Your task to perform on an android device: refresh tabs in the chrome app Image 0: 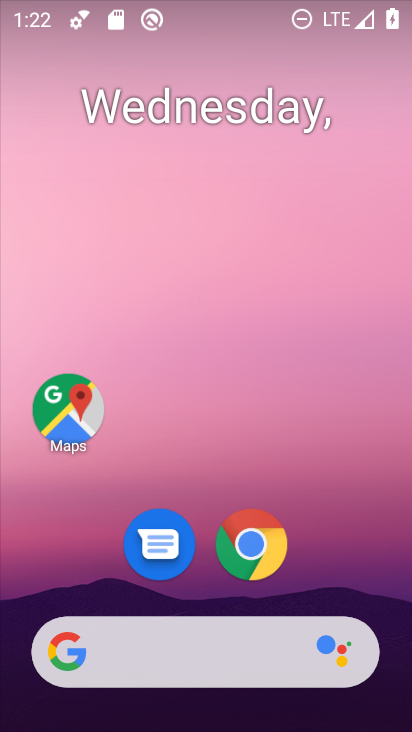
Step 0: click (245, 531)
Your task to perform on an android device: refresh tabs in the chrome app Image 1: 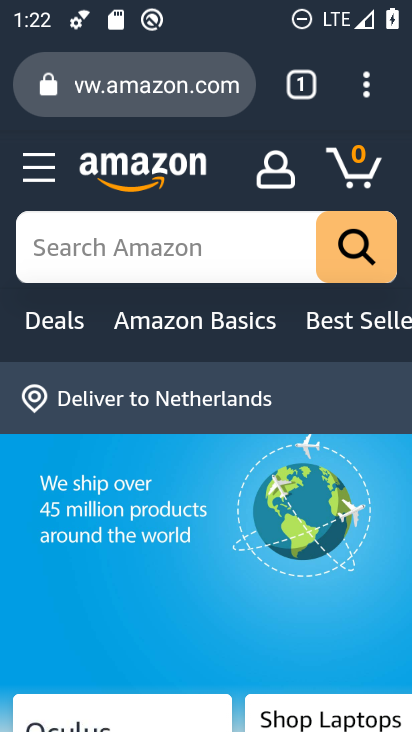
Step 1: click (356, 88)
Your task to perform on an android device: refresh tabs in the chrome app Image 2: 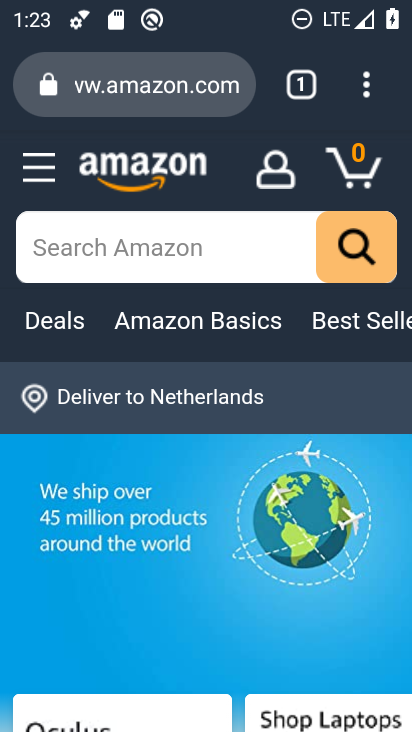
Step 2: task complete